Your task to perform on an android device: turn off airplane mode Image 0: 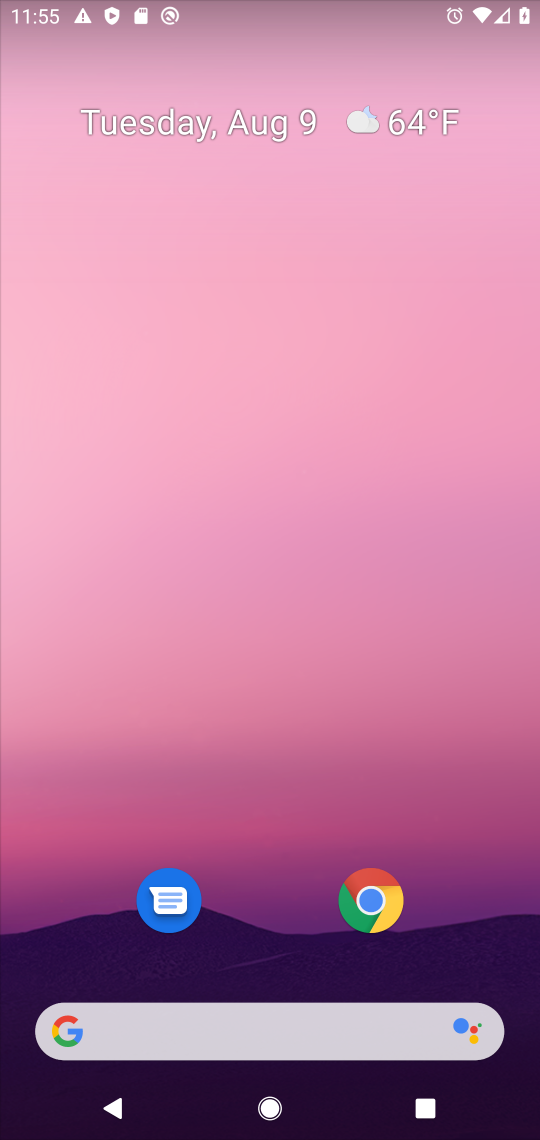
Step 0: drag from (288, 789) to (277, 2)
Your task to perform on an android device: turn off airplane mode Image 1: 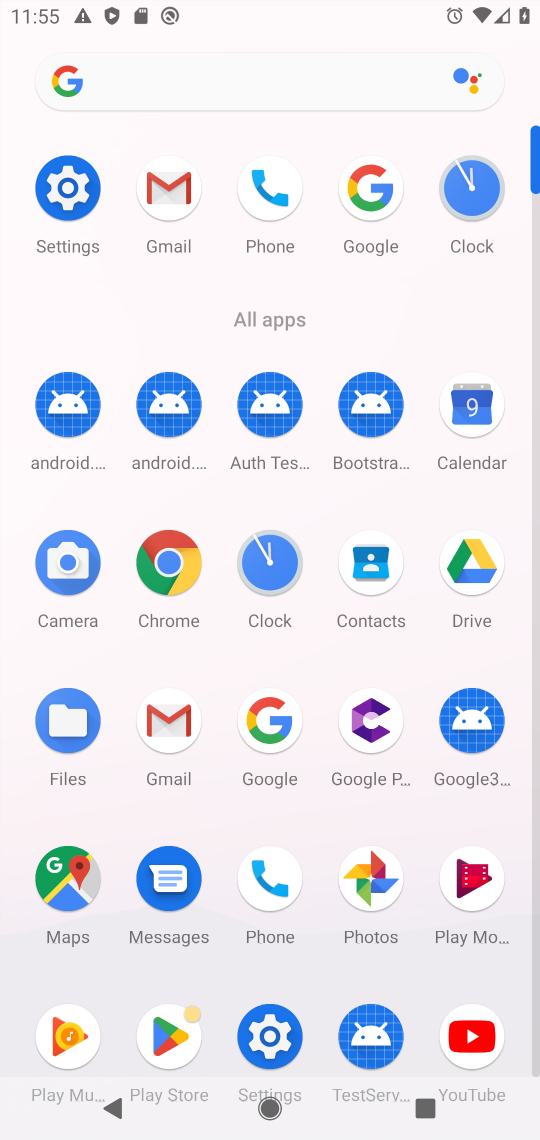
Step 1: click (74, 187)
Your task to perform on an android device: turn off airplane mode Image 2: 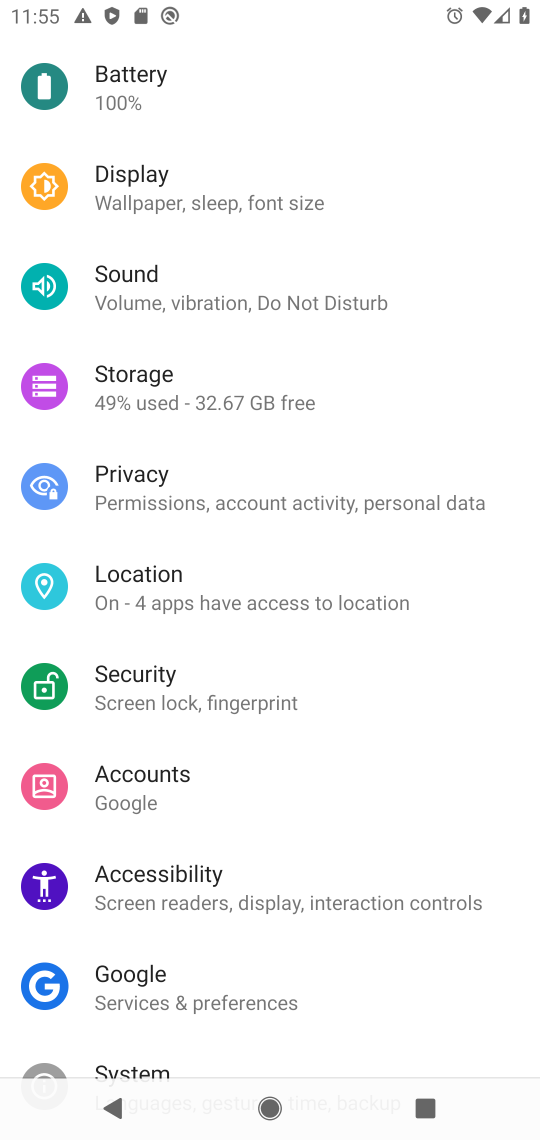
Step 2: drag from (413, 219) to (385, 938)
Your task to perform on an android device: turn off airplane mode Image 3: 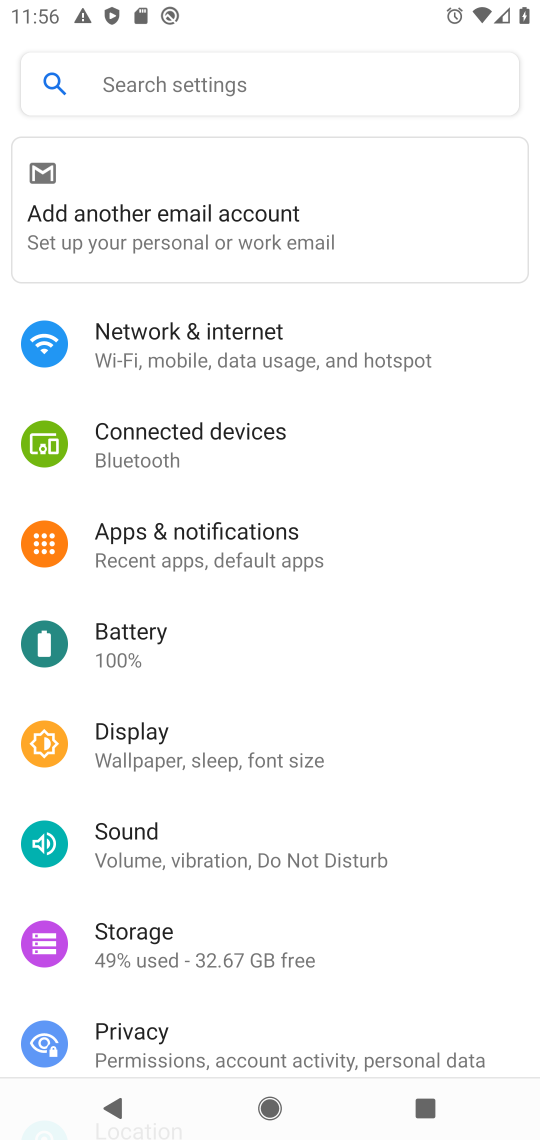
Step 3: click (261, 360)
Your task to perform on an android device: turn off airplane mode Image 4: 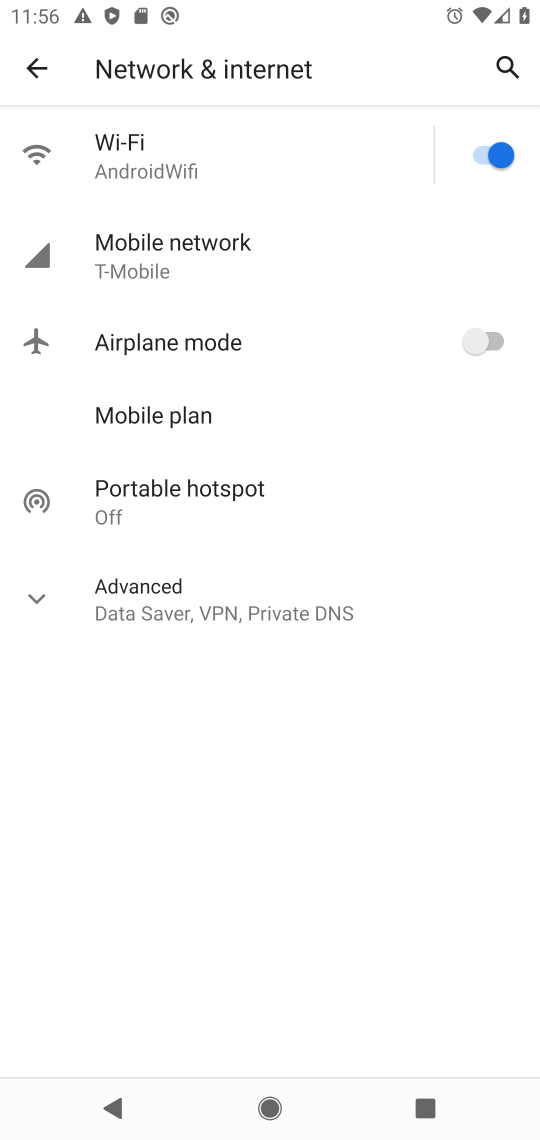
Step 4: task complete